Your task to perform on an android device: Open settings on Google Maps Image 0: 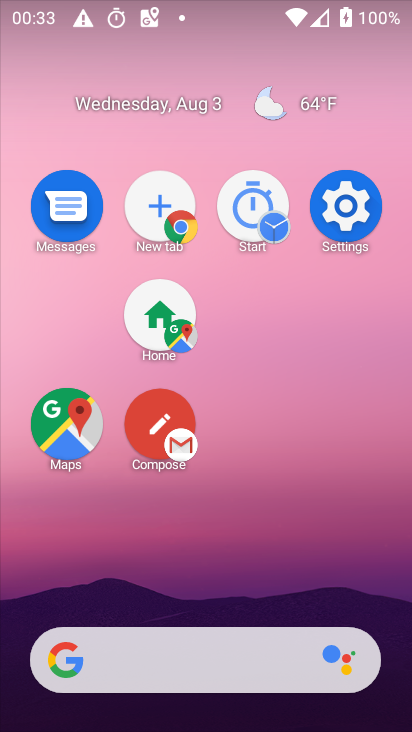
Step 0: drag from (267, 712) to (187, 289)
Your task to perform on an android device: Open settings on Google Maps Image 1: 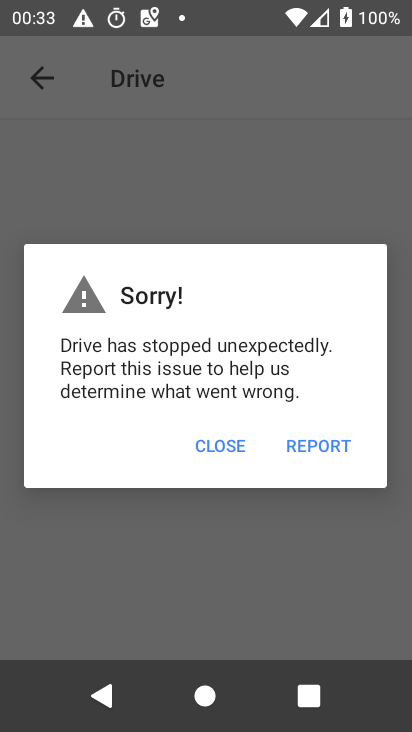
Step 1: click (241, 435)
Your task to perform on an android device: Open settings on Google Maps Image 2: 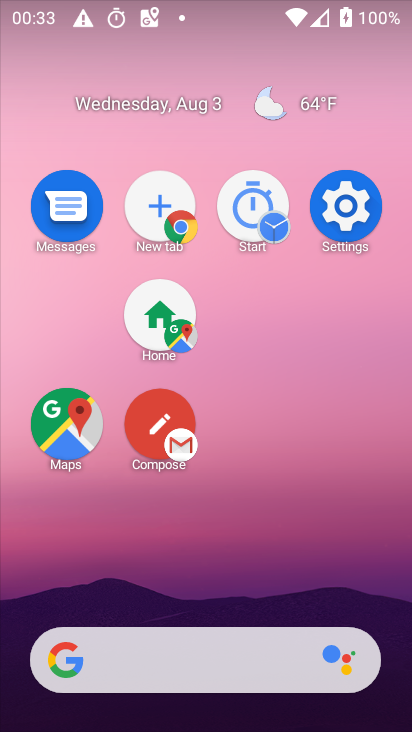
Step 2: drag from (192, 415) to (148, 250)
Your task to perform on an android device: Open settings on Google Maps Image 3: 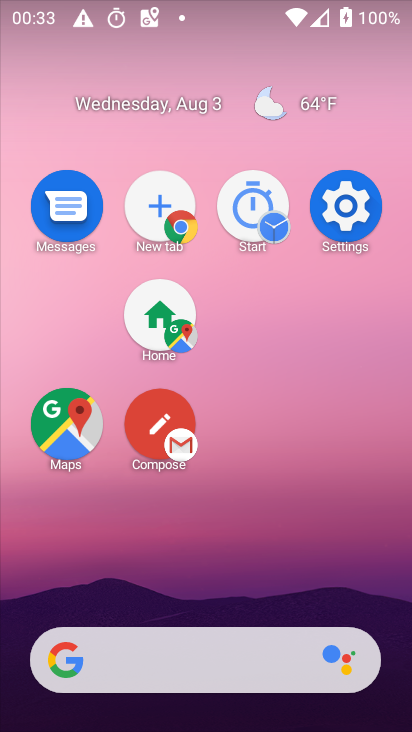
Step 3: click (54, 438)
Your task to perform on an android device: Open settings on Google Maps Image 4: 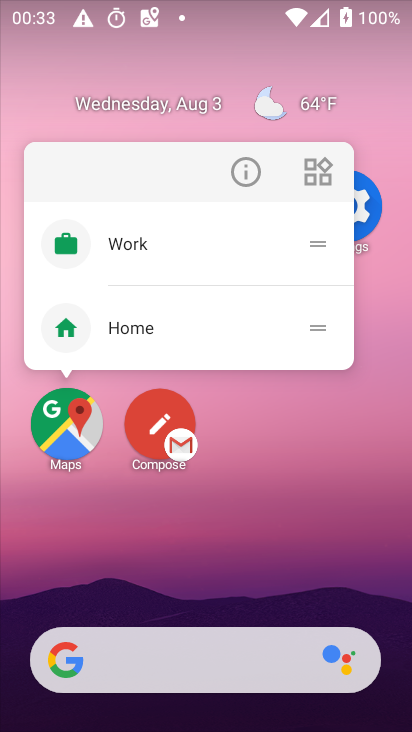
Step 4: click (54, 438)
Your task to perform on an android device: Open settings on Google Maps Image 5: 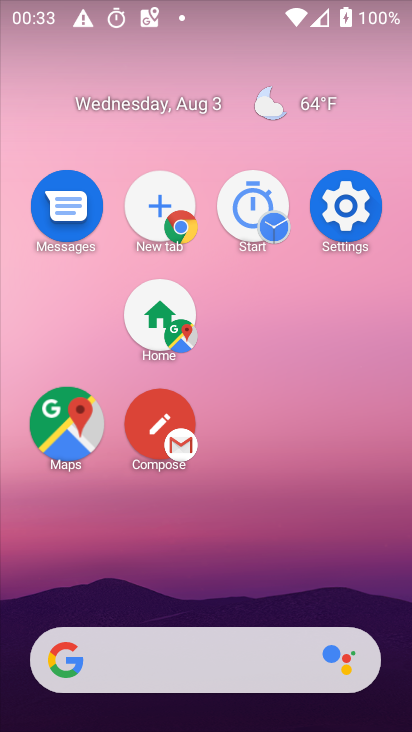
Step 5: click (66, 416)
Your task to perform on an android device: Open settings on Google Maps Image 6: 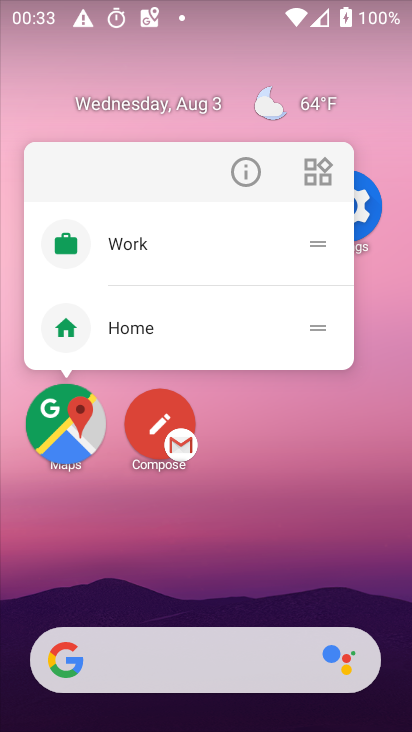
Step 6: click (71, 423)
Your task to perform on an android device: Open settings on Google Maps Image 7: 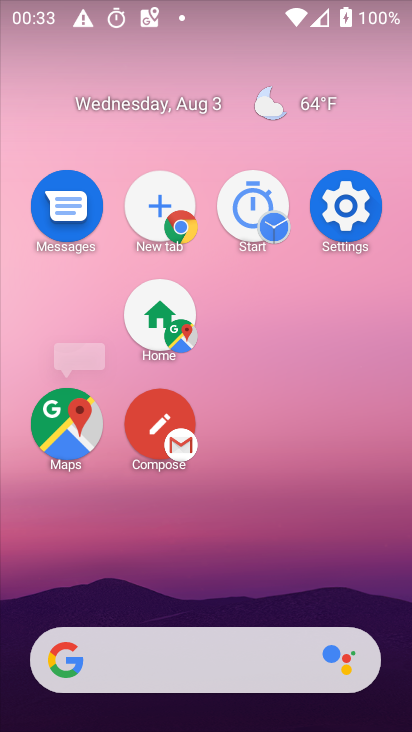
Step 7: click (70, 426)
Your task to perform on an android device: Open settings on Google Maps Image 8: 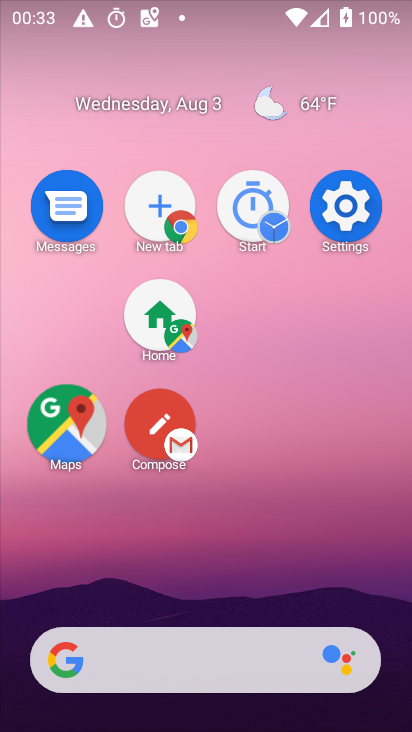
Step 8: click (70, 426)
Your task to perform on an android device: Open settings on Google Maps Image 9: 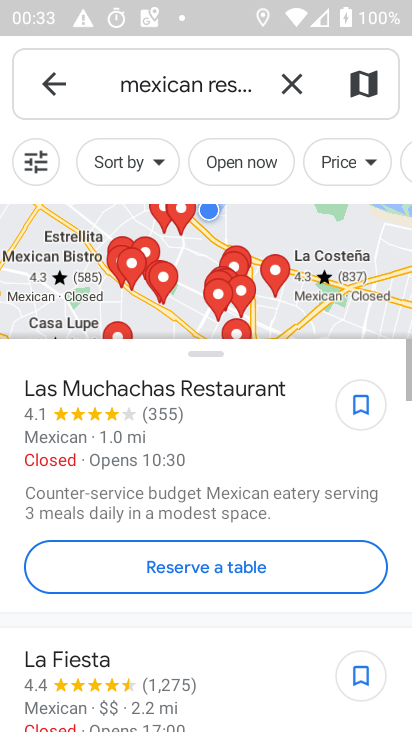
Step 9: click (45, 80)
Your task to perform on an android device: Open settings on Google Maps Image 10: 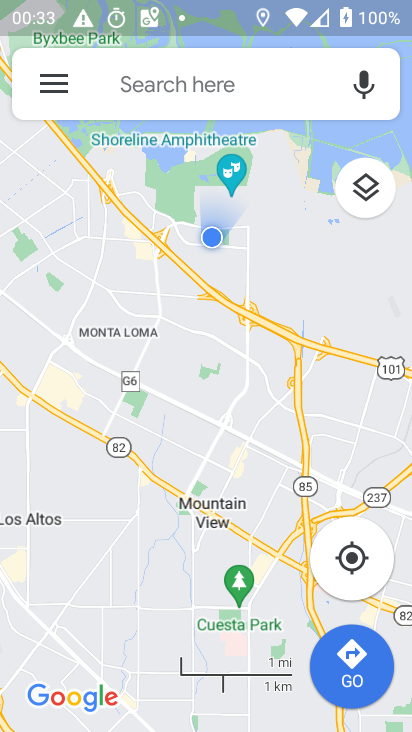
Step 10: click (57, 84)
Your task to perform on an android device: Open settings on Google Maps Image 11: 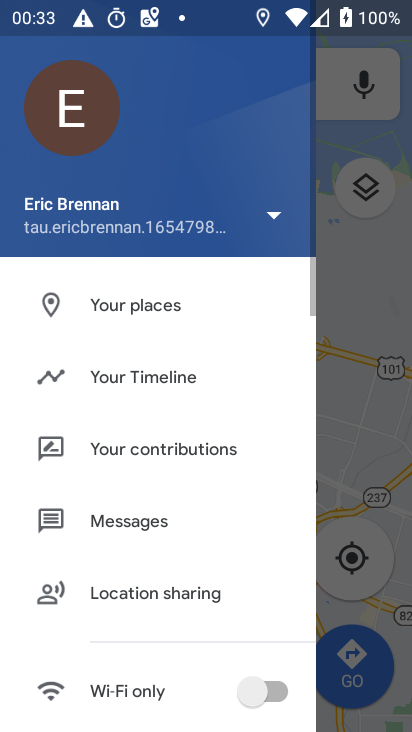
Step 11: drag from (162, 535) to (76, 222)
Your task to perform on an android device: Open settings on Google Maps Image 12: 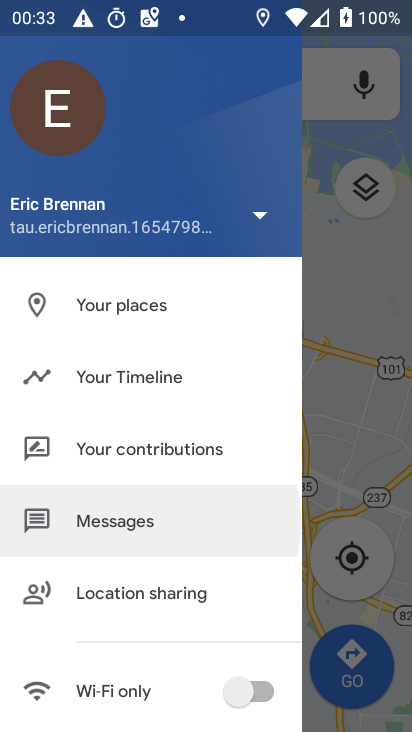
Step 12: drag from (206, 666) to (179, 405)
Your task to perform on an android device: Open settings on Google Maps Image 13: 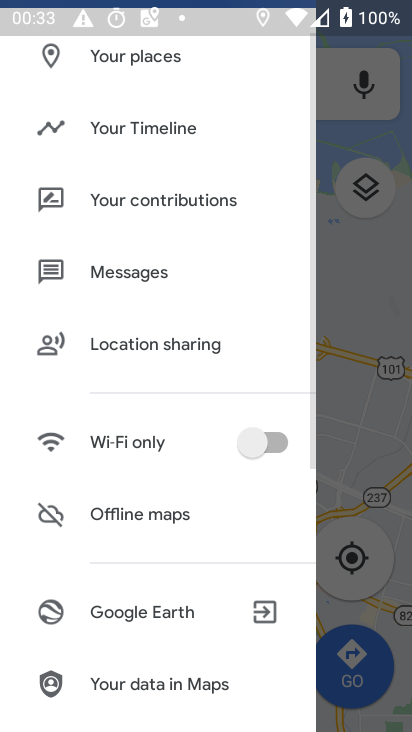
Step 13: drag from (184, 622) to (112, 305)
Your task to perform on an android device: Open settings on Google Maps Image 14: 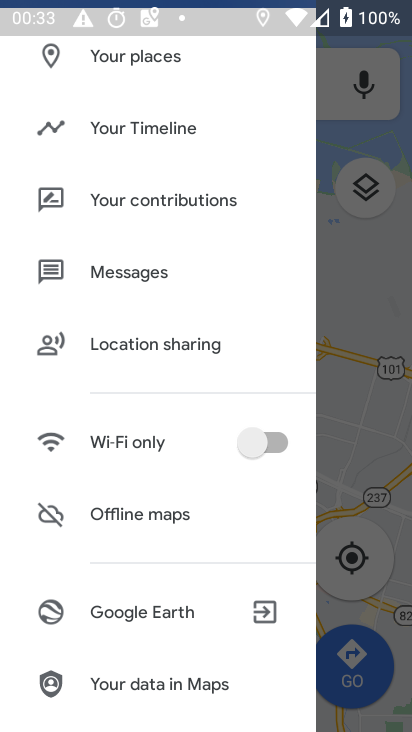
Step 14: drag from (166, 657) to (117, 257)
Your task to perform on an android device: Open settings on Google Maps Image 15: 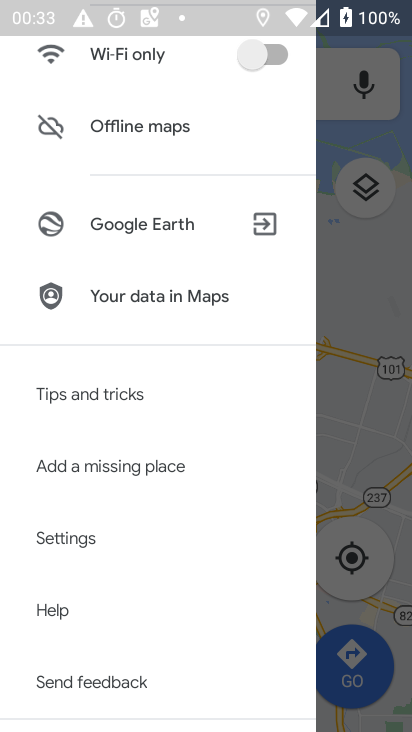
Step 15: click (71, 544)
Your task to perform on an android device: Open settings on Google Maps Image 16: 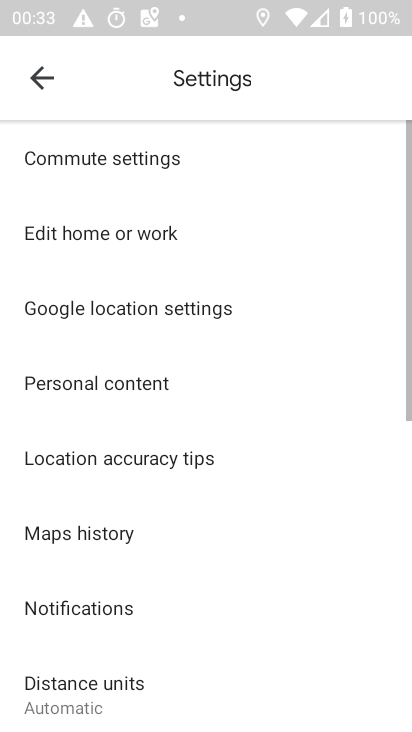
Step 16: task complete